Your task to perform on an android device: Open Chrome and go to the settings page Image 0: 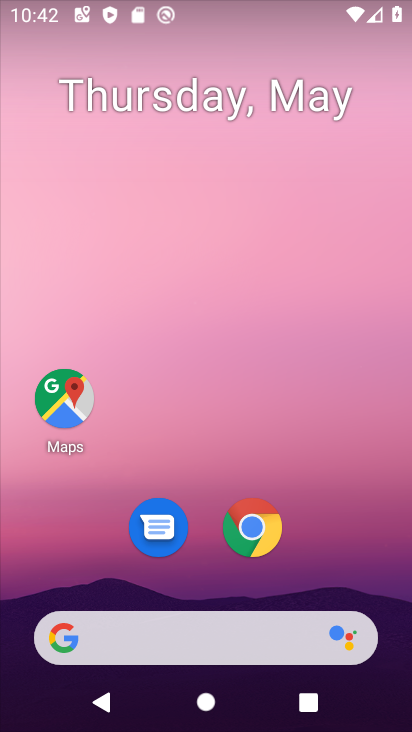
Step 0: click (253, 516)
Your task to perform on an android device: Open Chrome and go to the settings page Image 1: 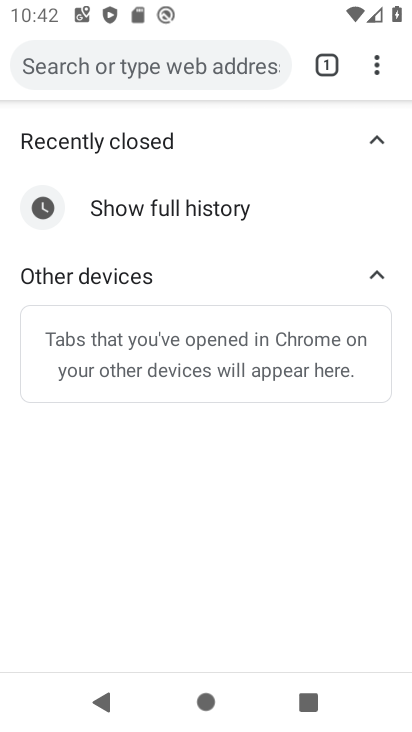
Step 1: task complete